Your task to perform on an android device: Go to ESPN.com Image 0: 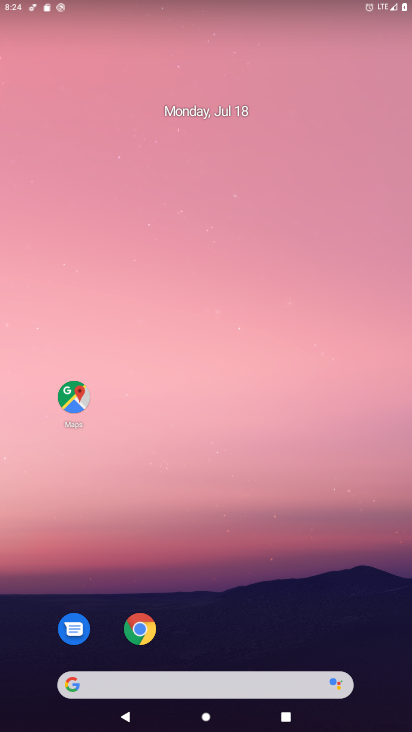
Step 0: click (128, 641)
Your task to perform on an android device: Go to ESPN.com Image 1: 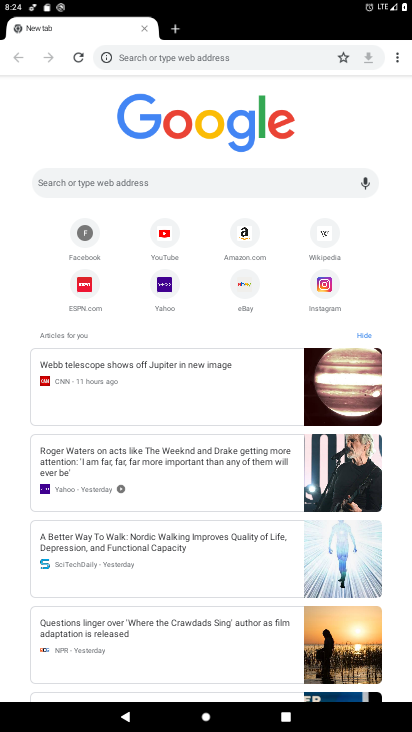
Step 1: click (91, 296)
Your task to perform on an android device: Go to ESPN.com Image 2: 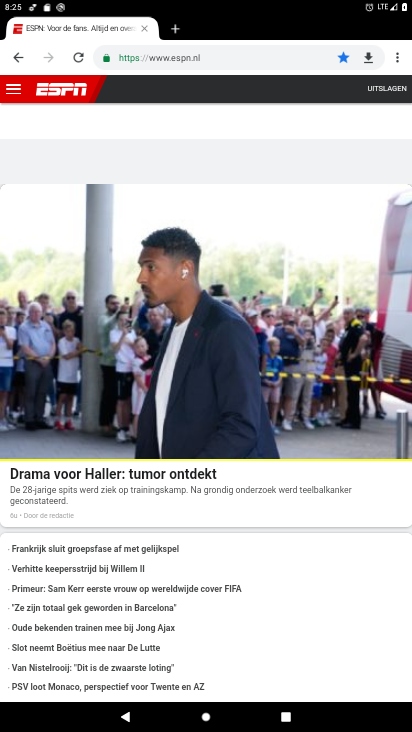
Step 2: task complete